Your task to perform on an android device: Go to notification settings Image 0: 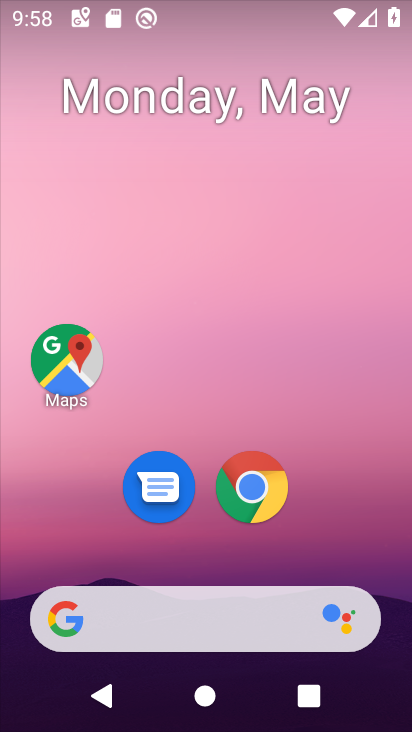
Step 0: drag from (202, 554) to (259, 18)
Your task to perform on an android device: Go to notification settings Image 1: 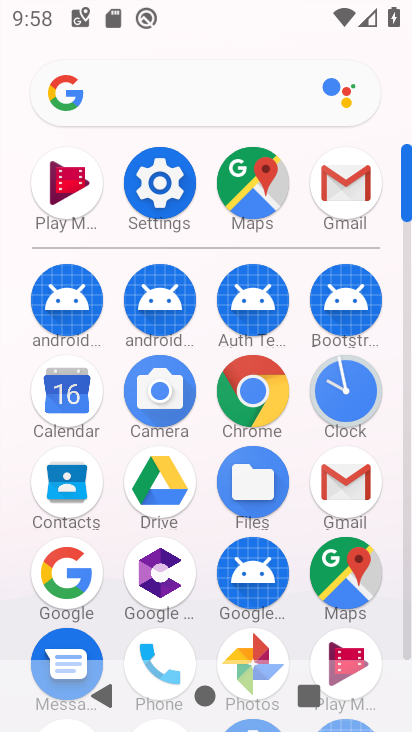
Step 1: click (148, 176)
Your task to perform on an android device: Go to notification settings Image 2: 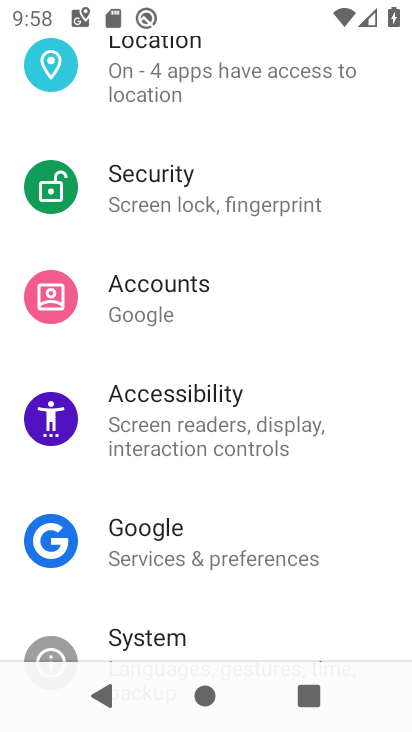
Step 2: drag from (220, 444) to (238, 515)
Your task to perform on an android device: Go to notification settings Image 3: 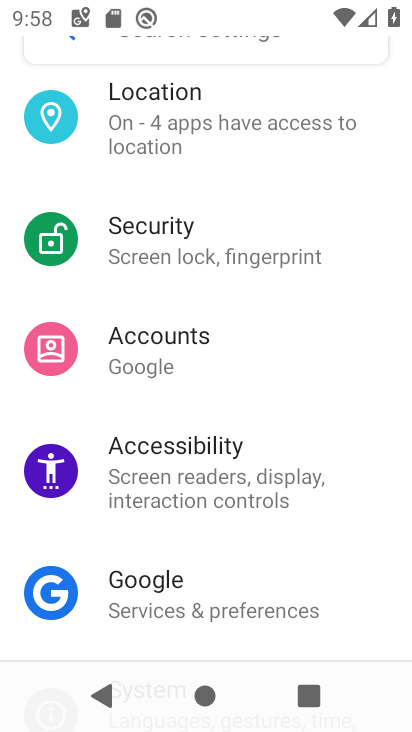
Step 3: drag from (252, 410) to (286, 506)
Your task to perform on an android device: Go to notification settings Image 4: 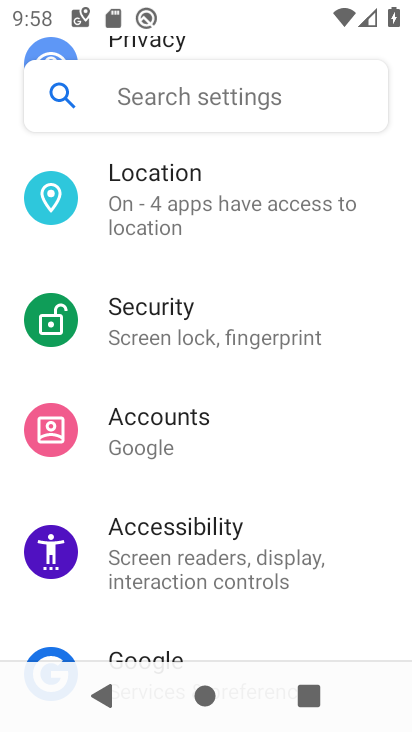
Step 4: drag from (272, 387) to (304, 460)
Your task to perform on an android device: Go to notification settings Image 5: 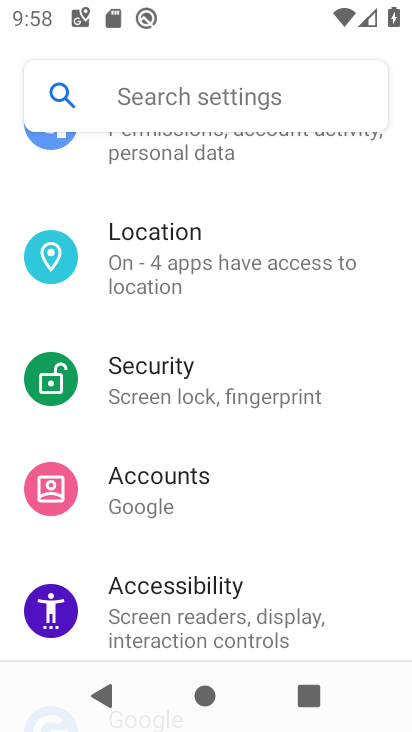
Step 5: drag from (298, 361) to (327, 439)
Your task to perform on an android device: Go to notification settings Image 6: 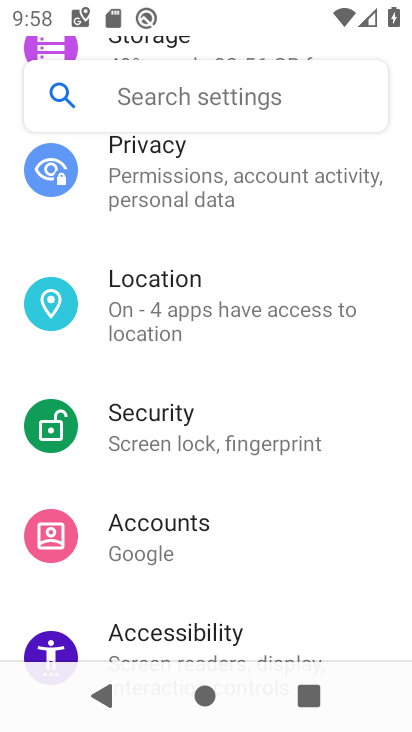
Step 6: drag from (294, 331) to (320, 410)
Your task to perform on an android device: Go to notification settings Image 7: 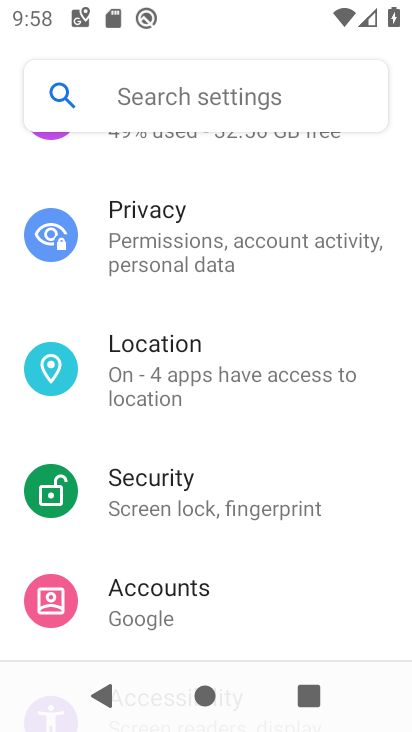
Step 7: drag from (292, 327) to (310, 400)
Your task to perform on an android device: Go to notification settings Image 8: 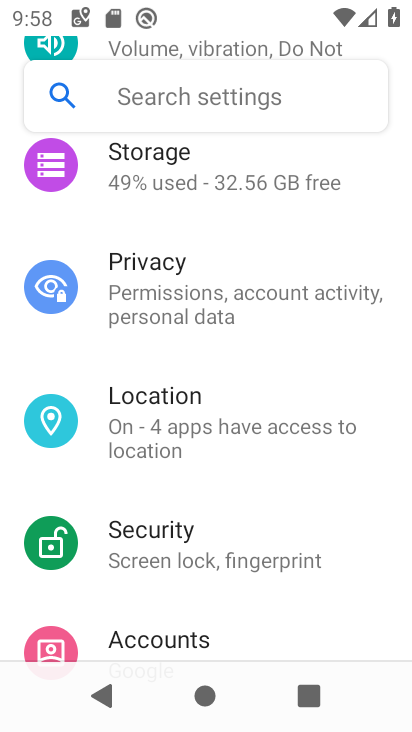
Step 8: drag from (290, 331) to (292, 399)
Your task to perform on an android device: Go to notification settings Image 9: 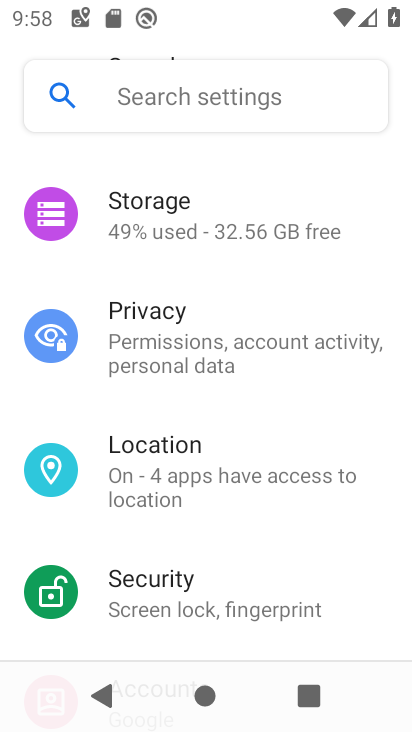
Step 9: drag from (273, 313) to (277, 403)
Your task to perform on an android device: Go to notification settings Image 10: 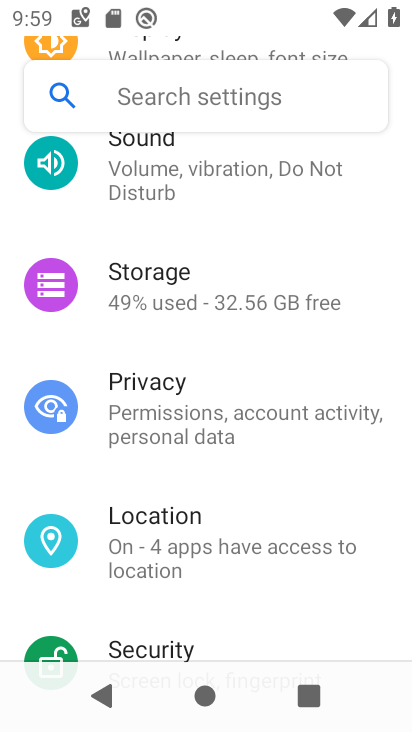
Step 10: drag from (236, 303) to (236, 388)
Your task to perform on an android device: Go to notification settings Image 11: 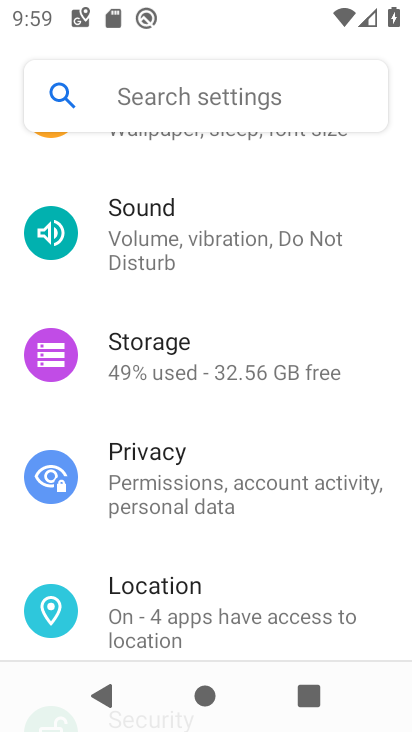
Step 11: drag from (219, 320) to (226, 408)
Your task to perform on an android device: Go to notification settings Image 12: 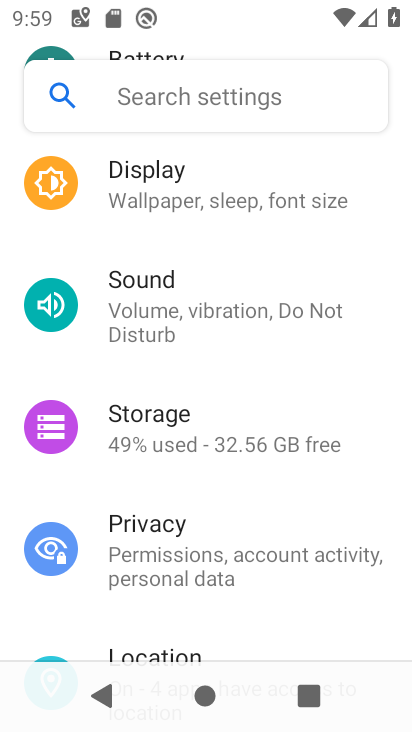
Step 12: drag from (217, 306) to (224, 438)
Your task to perform on an android device: Go to notification settings Image 13: 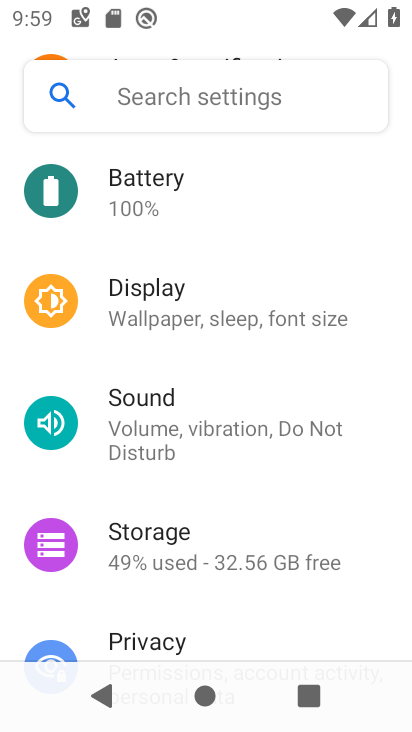
Step 13: drag from (223, 336) to (231, 429)
Your task to perform on an android device: Go to notification settings Image 14: 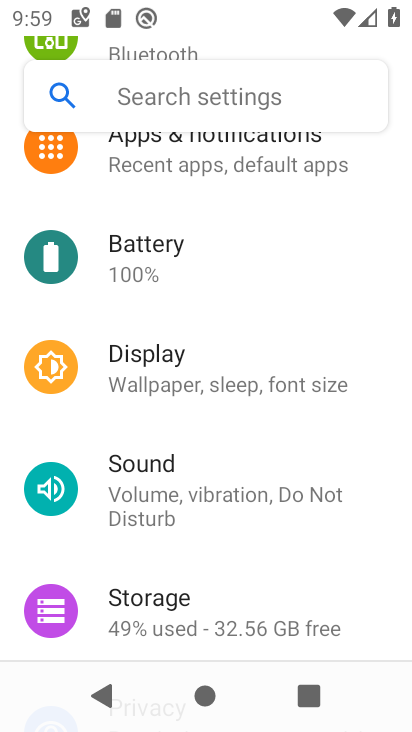
Step 14: click (251, 169)
Your task to perform on an android device: Go to notification settings Image 15: 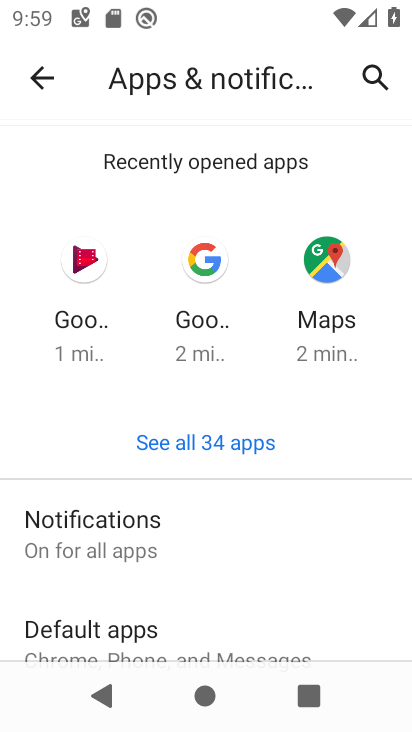
Step 15: click (303, 511)
Your task to perform on an android device: Go to notification settings Image 16: 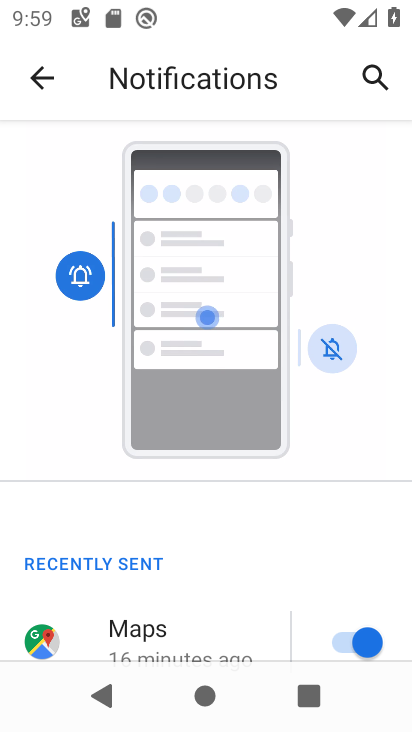
Step 16: task complete